Your task to perform on an android device: set the timer Image 0: 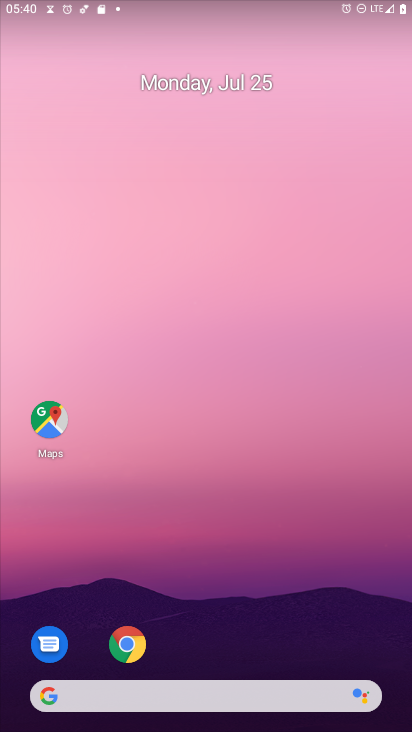
Step 0: press home button
Your task to perform on an android device: set the timer Image 1: 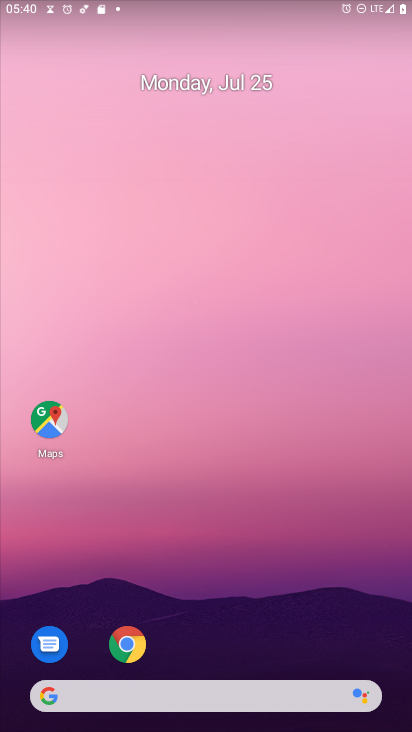
Step 1: drag from (278, 629) to (285, 151)
Your task to perform on an android device: set the timer Image 2: 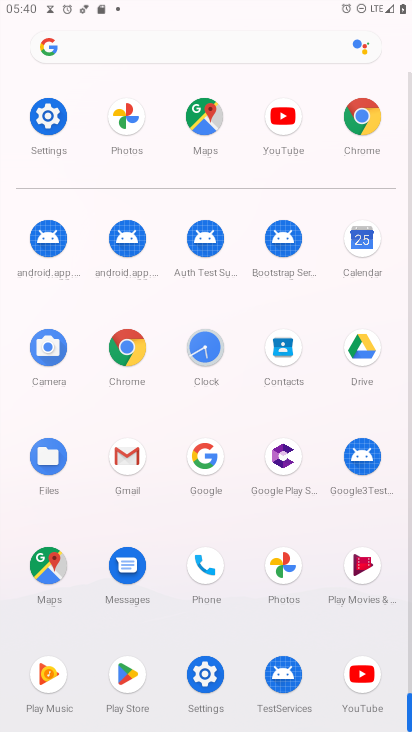
Step 2: click (208, 353)
Your task to perform on an android device: set the timer Image 3: 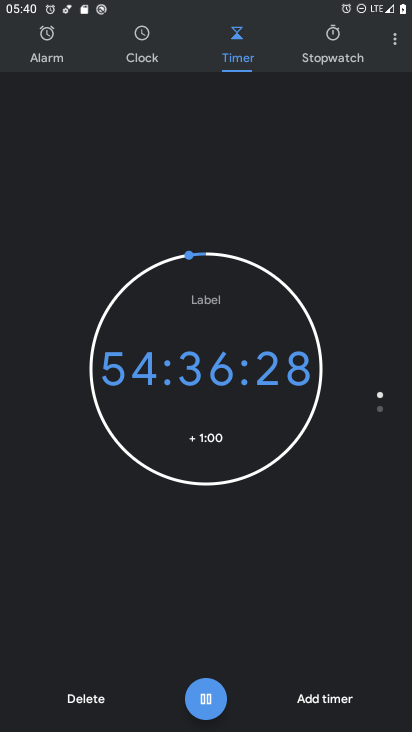
Step 3: click (248, 45)
Your task to perform on an android device: set the timer Image 4: 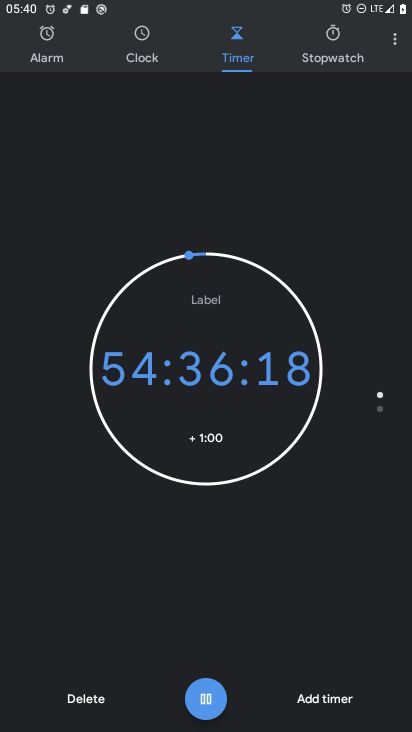
Step 4: task complete